Your task to perform on an android device: turn off wifi Image 0: 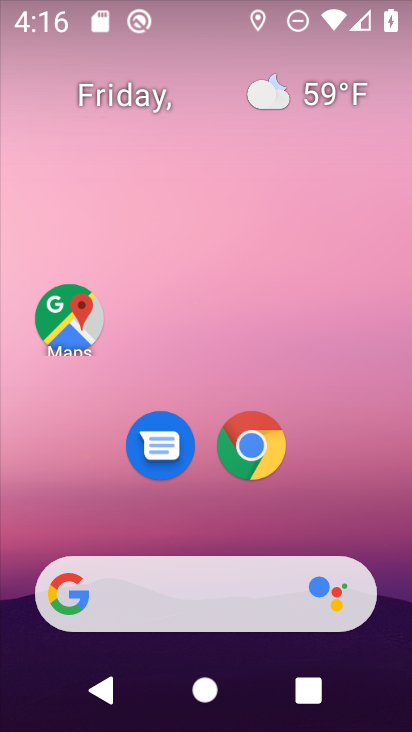
Step 0: drag from (394, 625) to (376, 173)
Your task to perform on an android device: turn off wifi Image 1: 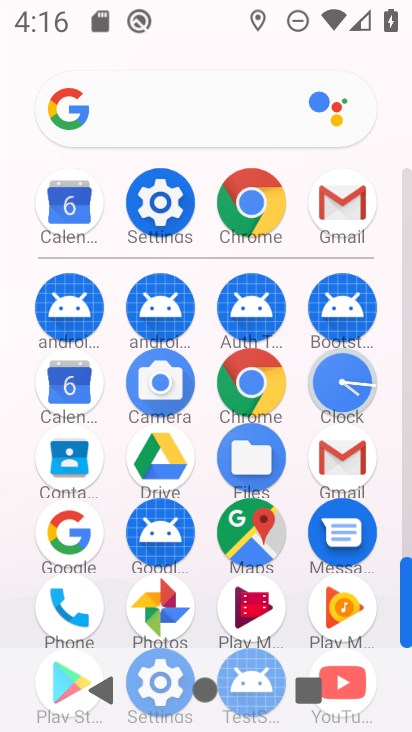
Step 1: click (406, 540)
Your task to perform on an android device: turn off wifi Image 2: 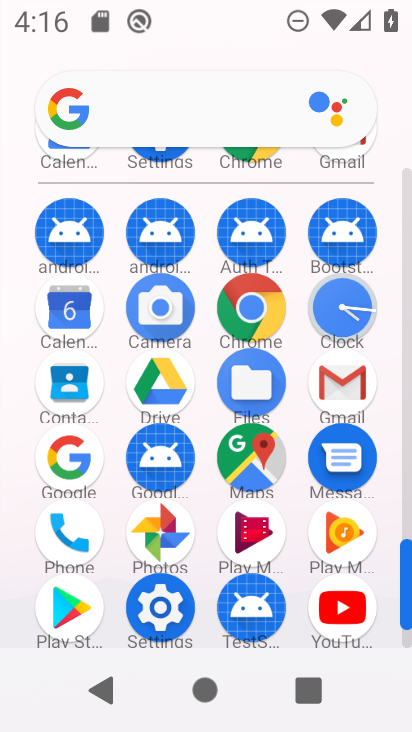
Step 2: click (164, 602)
Your task to perform on an android device: turn off wifi Image 3: 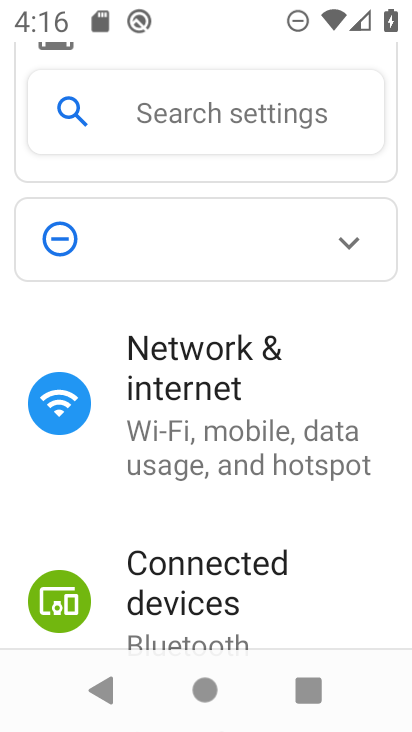
Step 3: click (175, 401)
Your task to perform on an android device: turn off wifi Image 4: 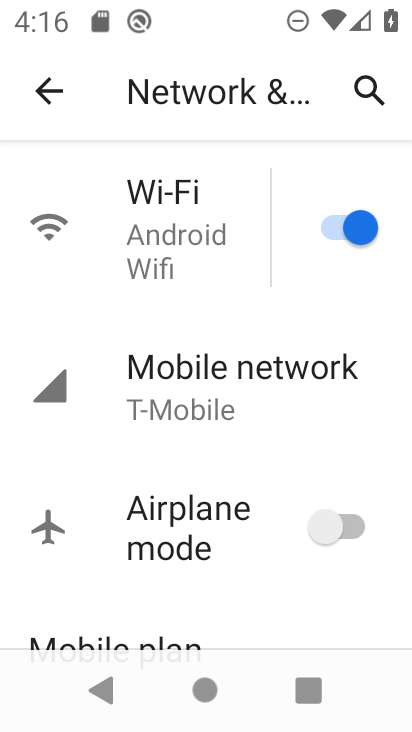
Step 4: click (337, 223)
Your task to perform on an android device: turn off wifi Image 5: 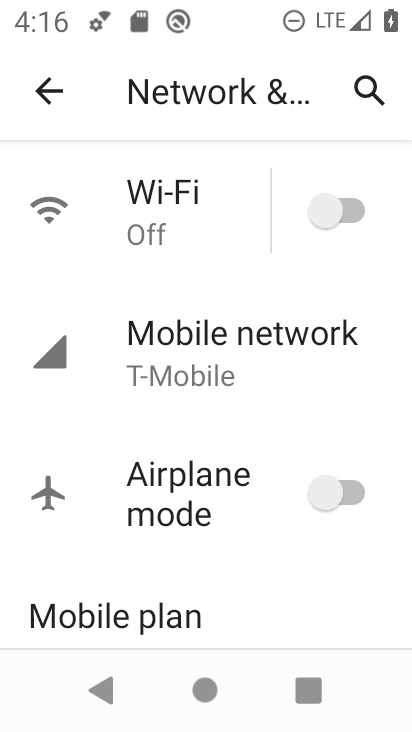
Step 5: task complete